Your task to perform on an android device: Open calendar and show me the second week of next month Image 0: 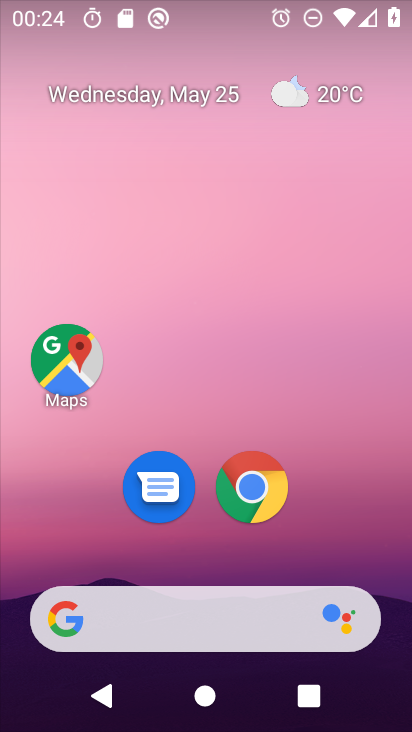
Step 0: drag from (355, 564) to (341, 39)
Your task to perform on an android device: Open calendar and show me the second week of next month Image 1: 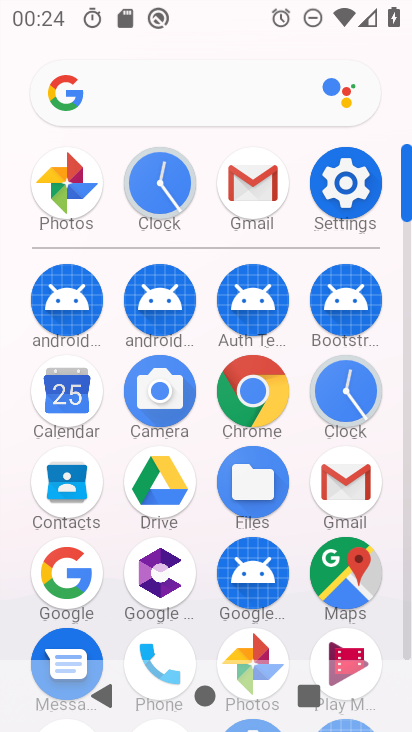
Step 1: click (72, 395)
Your task to perform on an android device: Open calendar and show me the second week of next month Image 2: 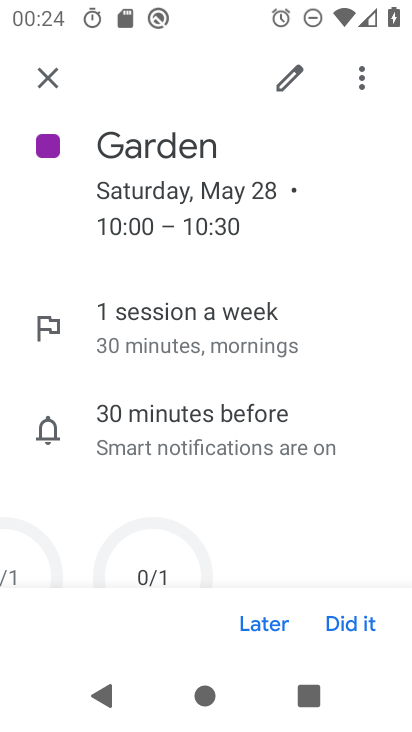
Step 2: click (46, 76)
Your task to perform on an android device: Open calendar and show me the second week of next month Image 3: 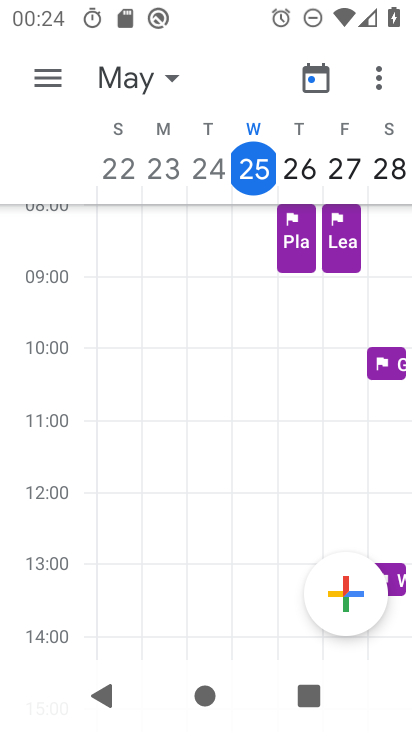
Step 3: task complete